Your task to perform on an android device: Open notification settings Image 0: 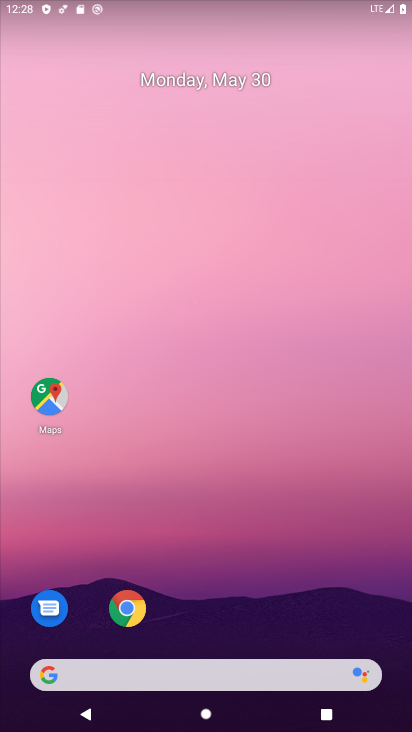
Step 0: drag from (225, 642) to (260, 68)
Your task to perform on an android device: Open notification settings Image 1: 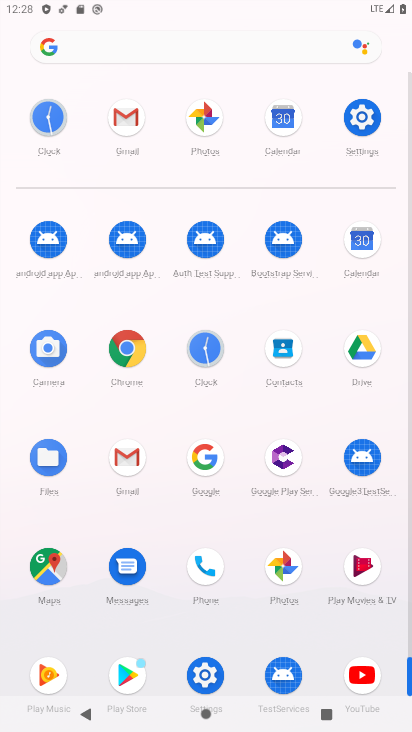
Step 1: click (348, 111)
Your task to perform on an android device: Open notification settings Image 2: 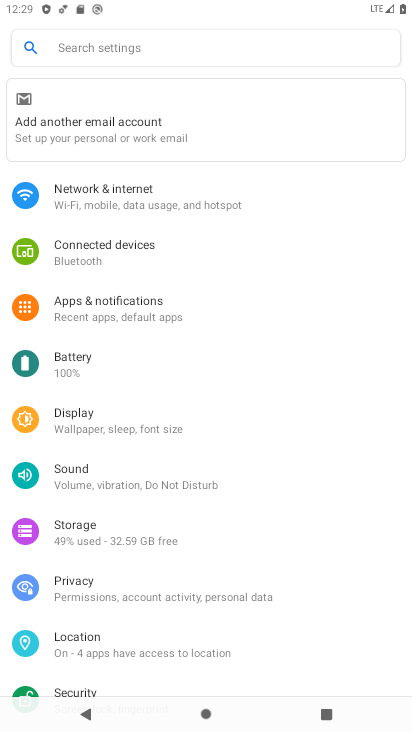
Step 2: click (135, 315)
Your task to perform on an android device: Open notification settings Image 3: 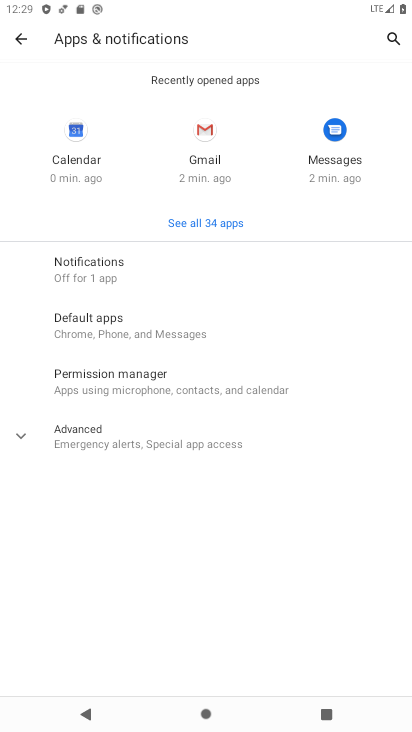
Step 3: click (136, 259)
Your task to perform on an android device: Open notification settings Image 4: 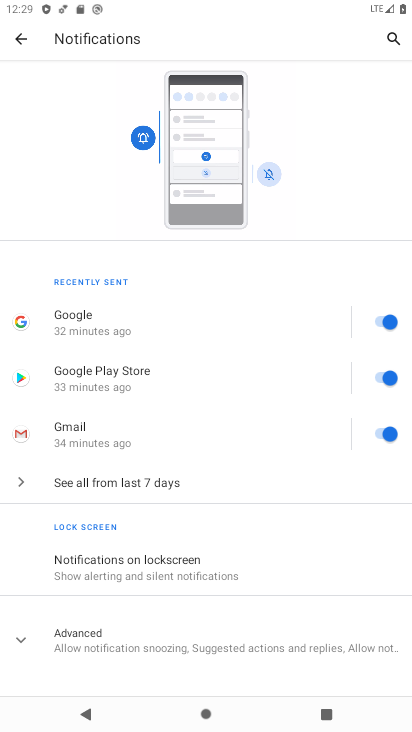
Step 4: task complete